Your task to perform on an android device: Where can I buy a nice beach blanket? Image 0: 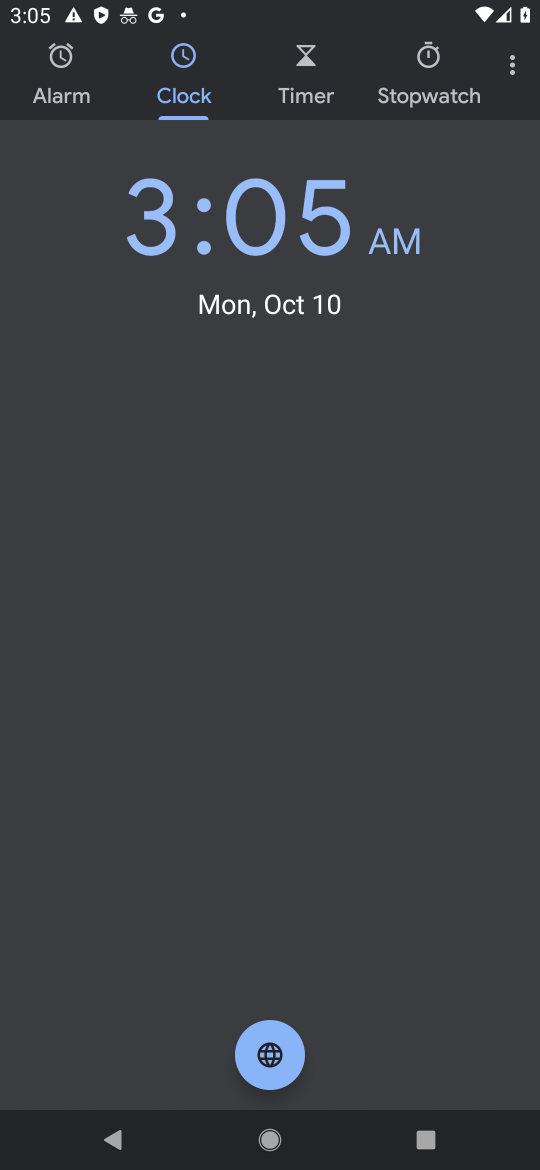
Step 0: press home button
Your task to perform on an android device: Where can I buy a nice beach blanket? Image 1: 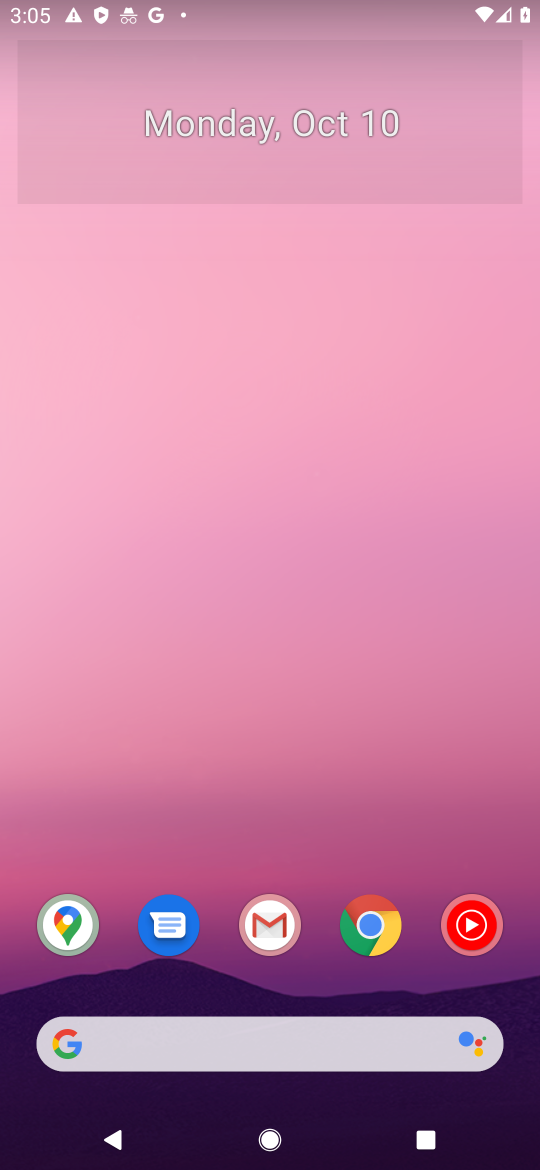
Step 1: click (367, 952)
Your task to perform on an android device: Where can I buy a nice beach blanket? Image 2: 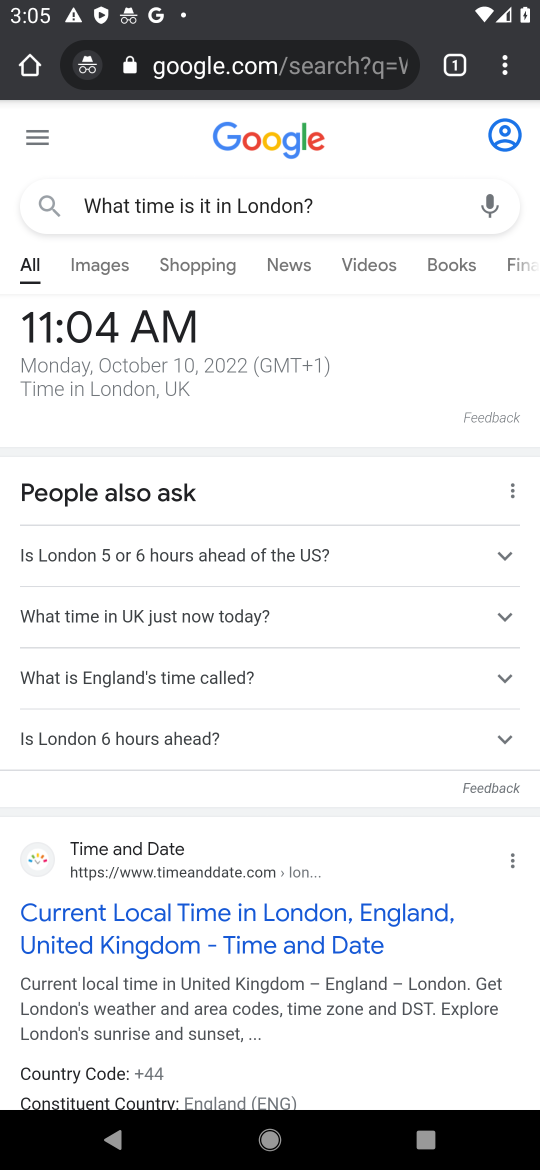
Step 2: click (360, 196)
Your task to perform on an android device: Where can I buy a nice beach blanket? Image 3: 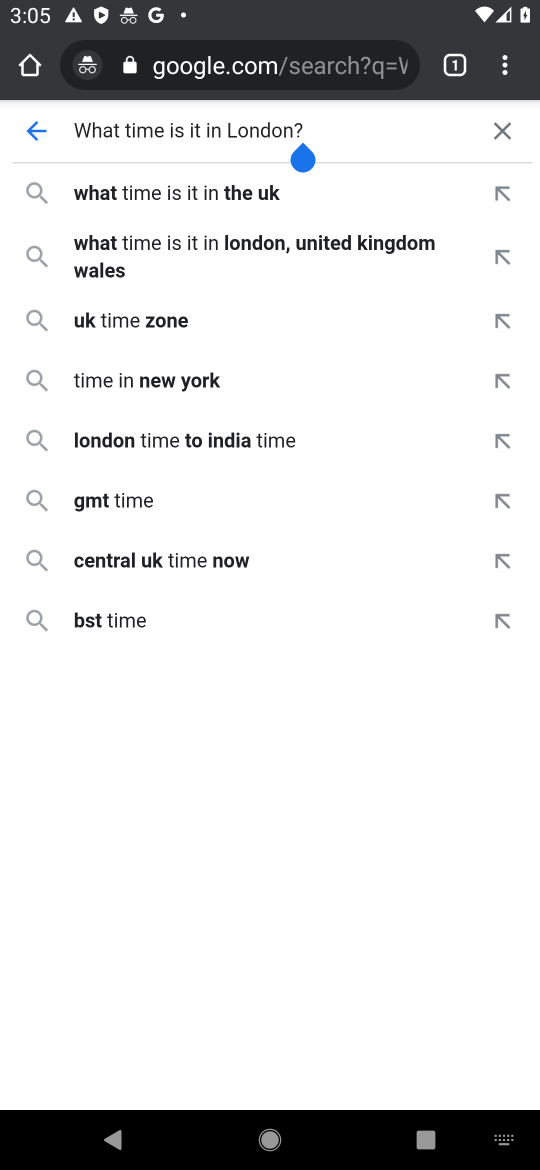
Step 3: click (501, 137)
Your task to perform on an android device: Where can I buy a nice beach blanket? Image 4: 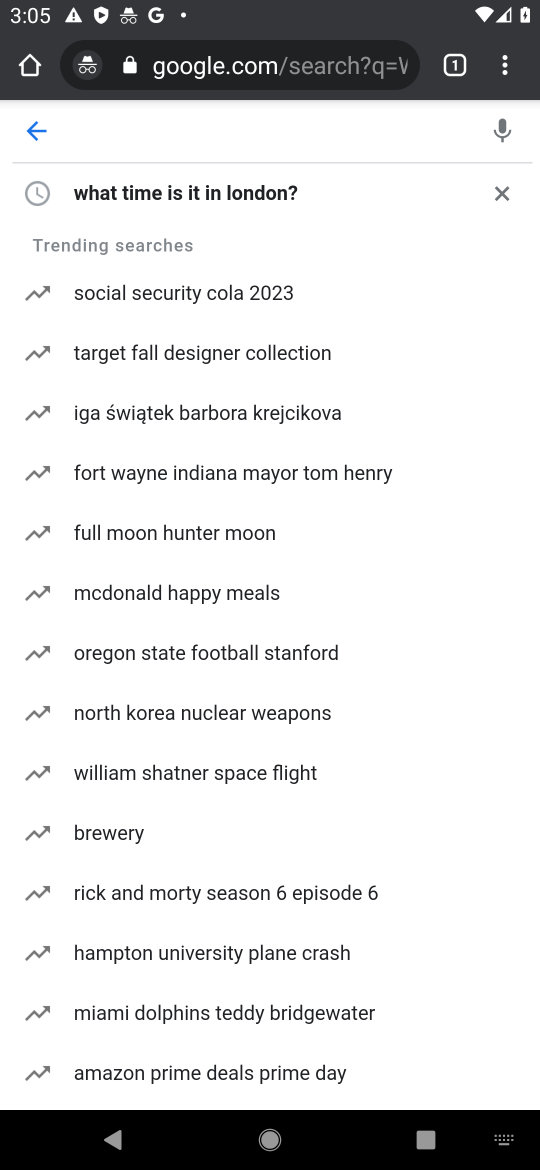
Step 4: drag from (313, 1143) to (475, 1168)
Your task to perform on an android device: Where can I buy a nice beach blanket? Image 5: 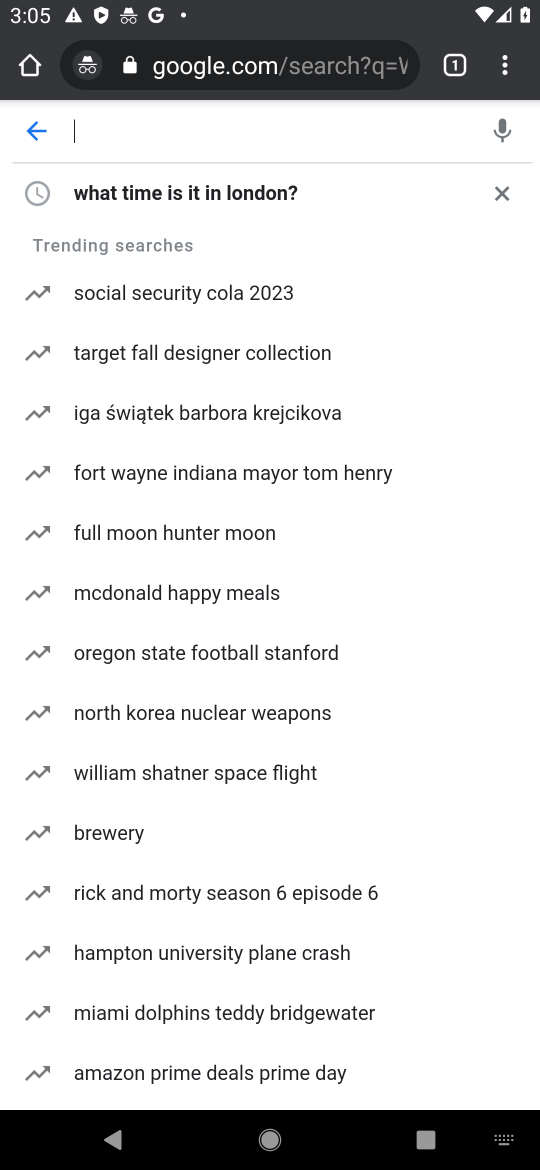
Step 5: type "Where can I buy a nice beach blanket?"
Your task to perform on an android device: Where can I buy a nice beach blanket? Image 6: 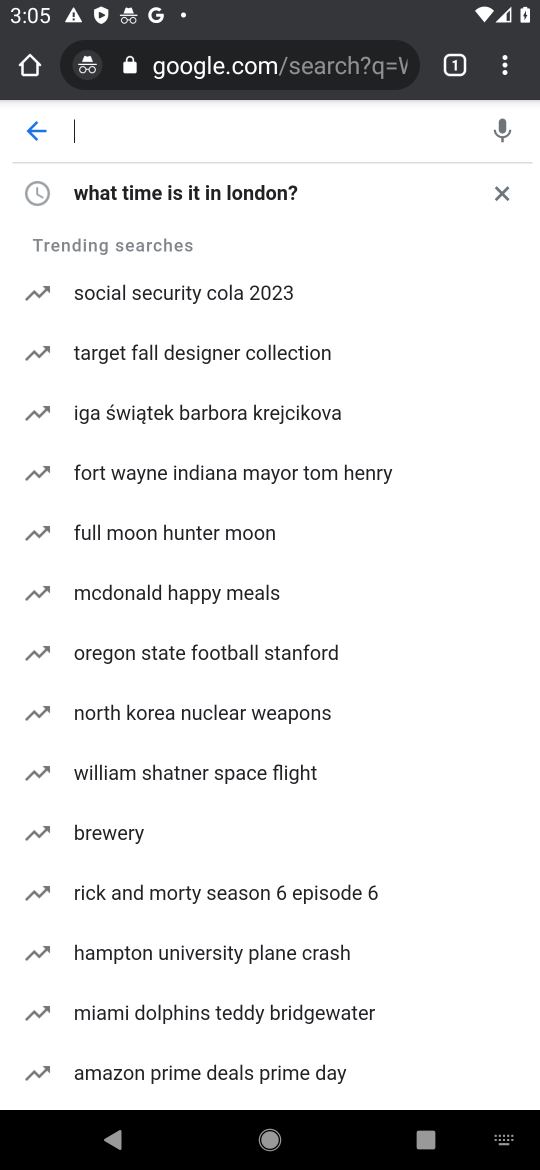
Step 6: click (475, 1168)
Your task to perform on an android device: Where can I buy a nice beach blanket? Image 7: 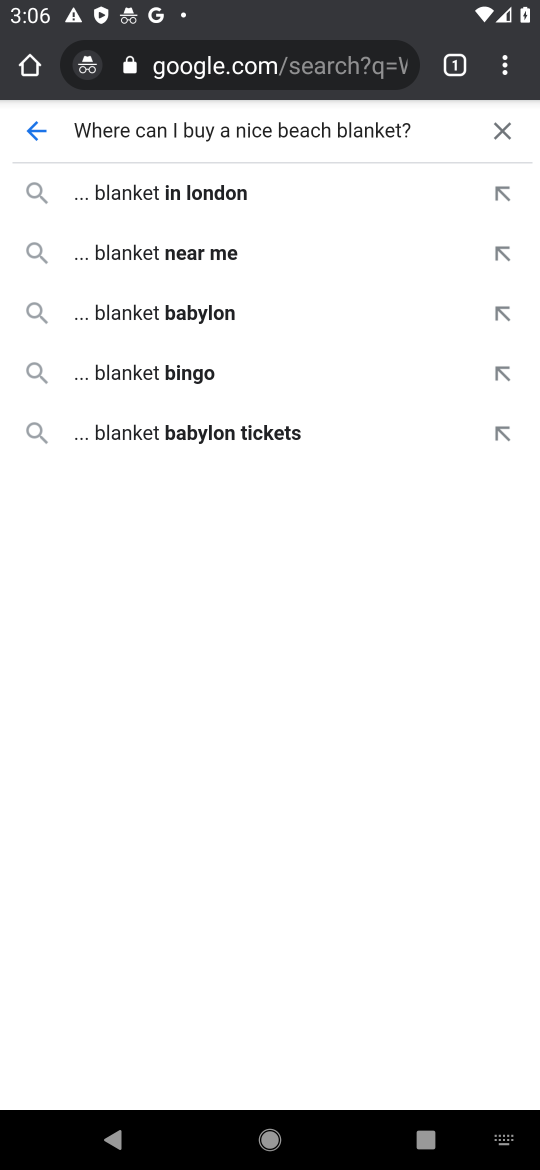
Step 7: press enter
Your task to perform on an android device: Where can I buy a nice beach blanket? Image 8: 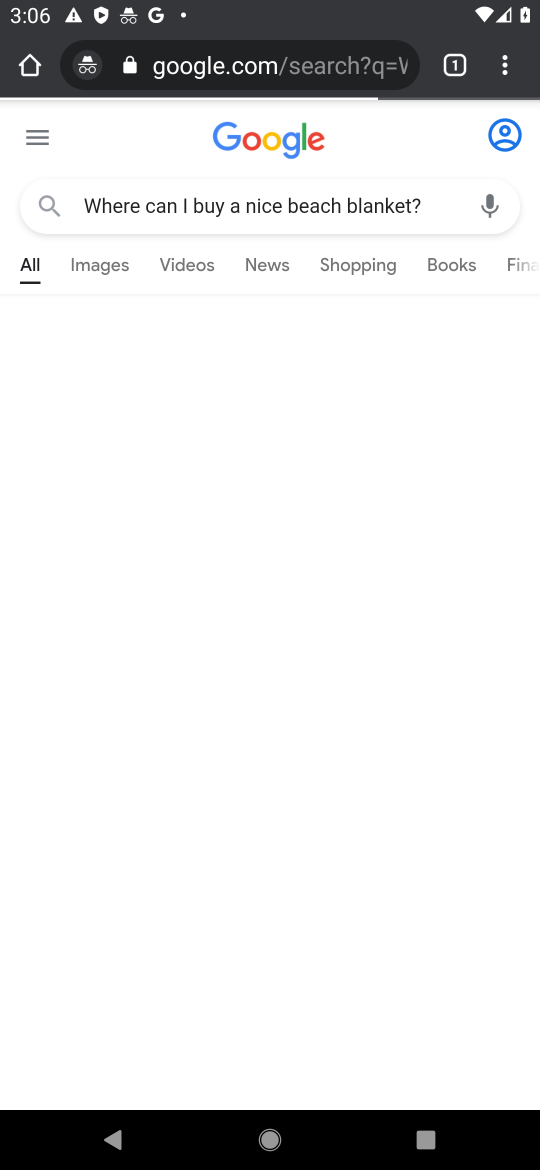
Step 8: click (475, 1168)
Your task to perform on an android device: Where can I buy a nice beach blanket? Image 9: 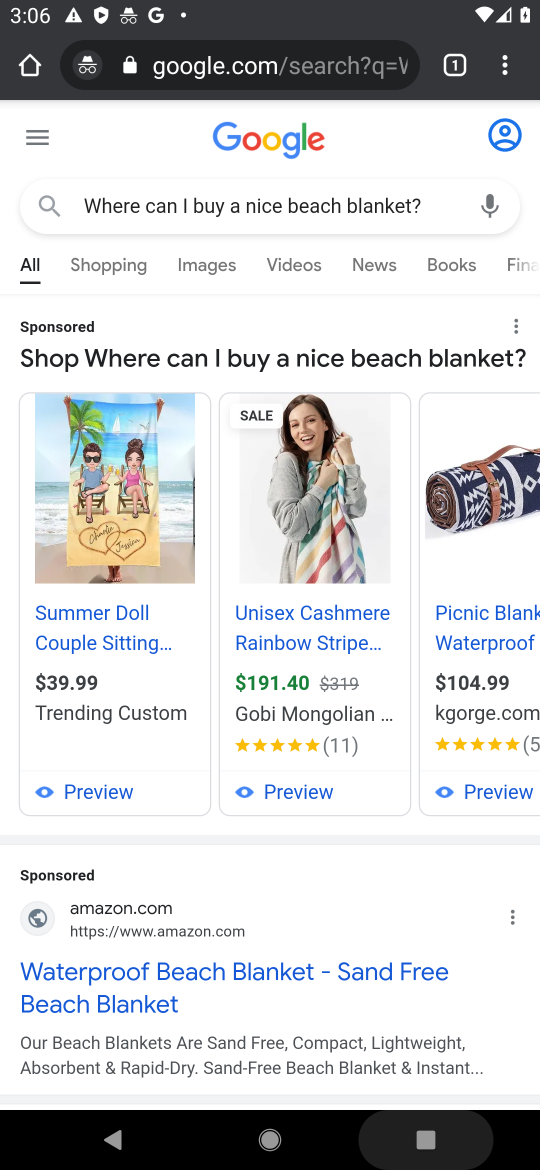
Step 9: task complete